Your task to perform on an android device: open chrome and create a bookmark for the current page Image 0: 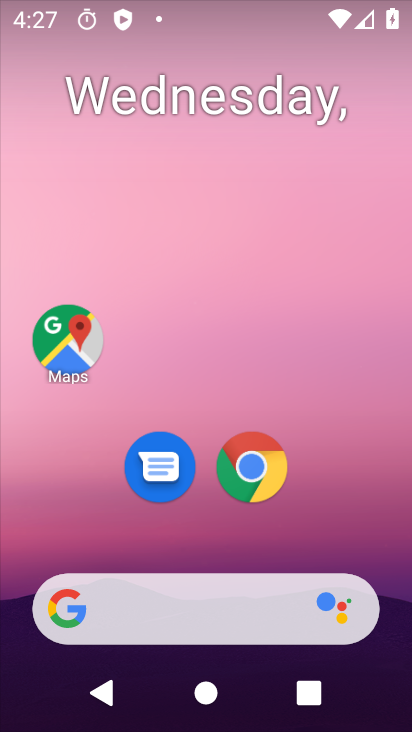
Step 0: click (250, 469)
Your task to perform on an android device: open chrome and create a bookmark for the current page Image 1: 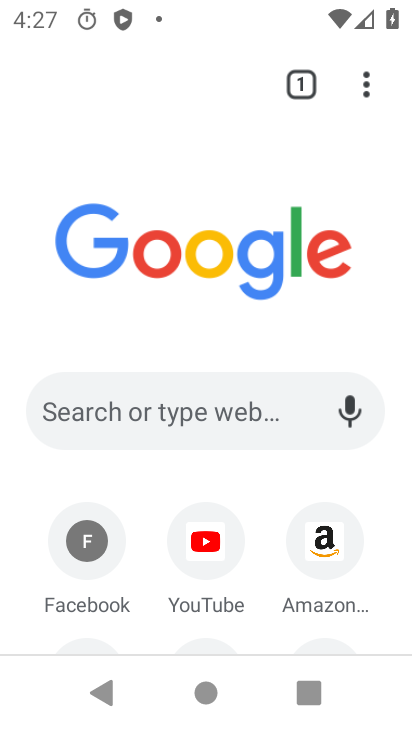
Step 1: click (364, 84)
Your task to perform on an android device: open chrome and create a bookmark for the current page Image 2: 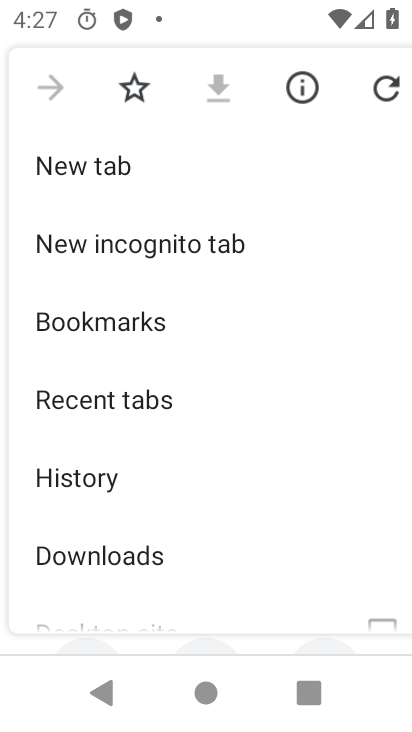
Step 2: click (135, 83)
Your task to perform on an android device: open chrome and create a bookmark for the current page Image 3: 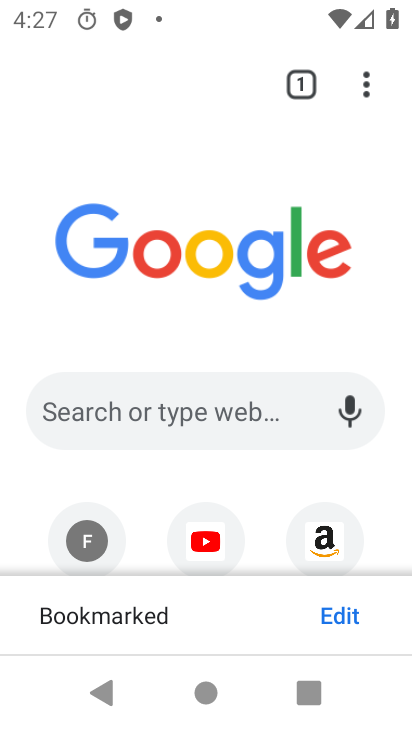
Step 3: task complete